Your task to perform on an android device: Do I have any events this weekend? Image 0: 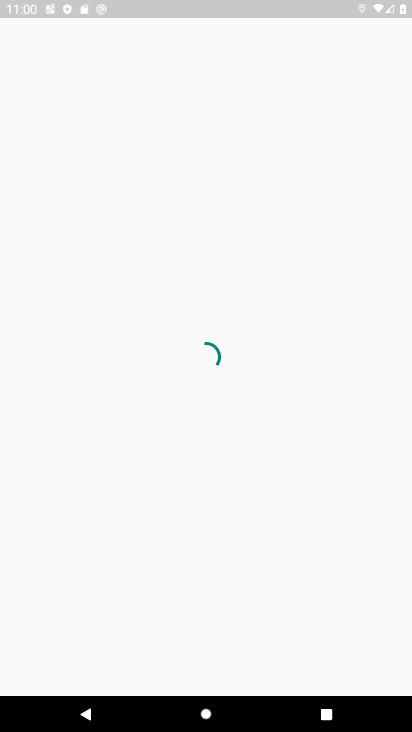
Step 0: press home button
Your task to perform on an android device: Do I have any events this weekend? Image 1: 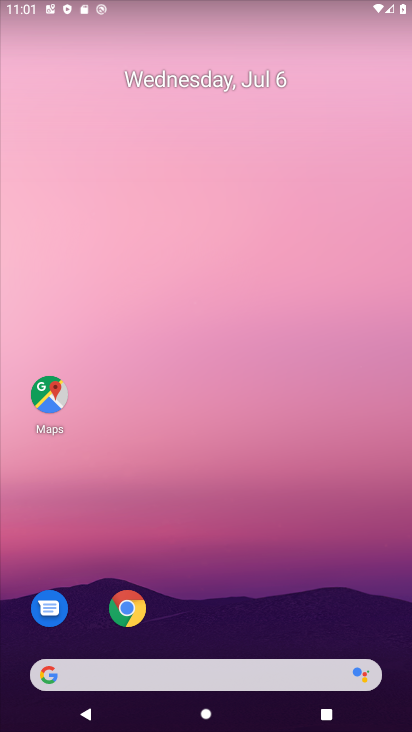
Step 1: drag from (234, 639) to (211, 326)
Your task to perform on an android device: Do I have any events this weekend? Image 2: 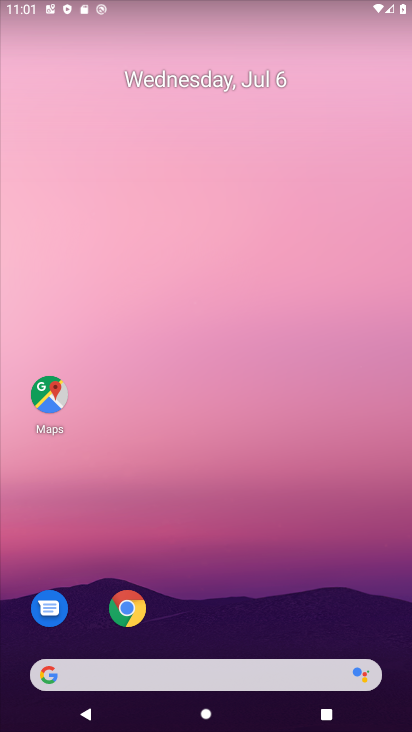
Step 2: drag from (181, 575) to (186, 2)
Your task to perform on an android device: Do I have any events this weekend? Image 3: 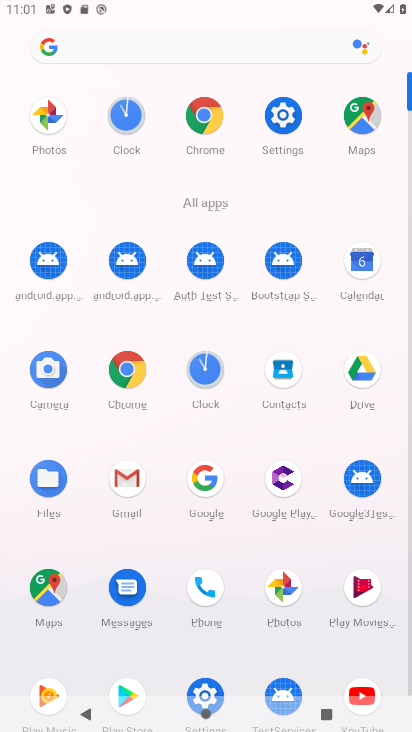
Step 3: click (357, 271)
Your task to perform on an android device: Do I have any events this weekend? Image 4: 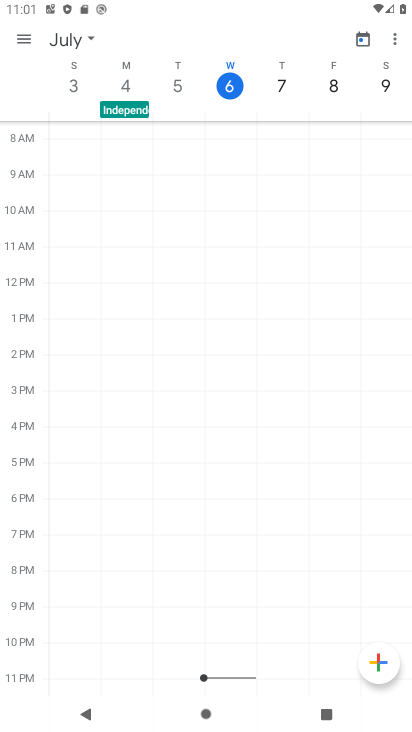
Step 4: task complete